Your task to perform on an android device: Open Youtube and go to the subscriptions tab Image 0: 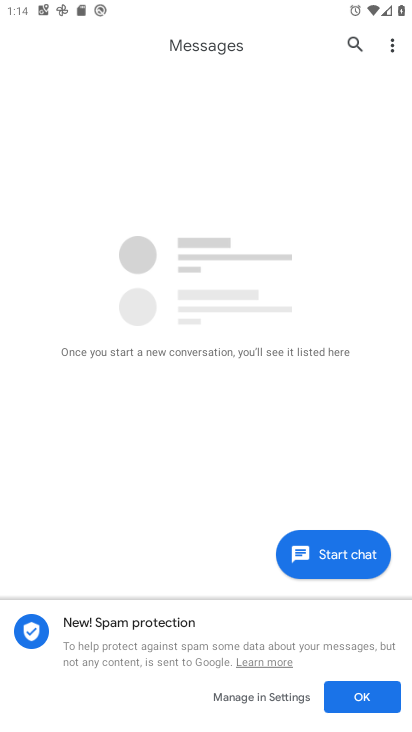
Step 0: press home button
Your task to perform on an android device: Open Youtube and go to the subscriptions tab Image 1: 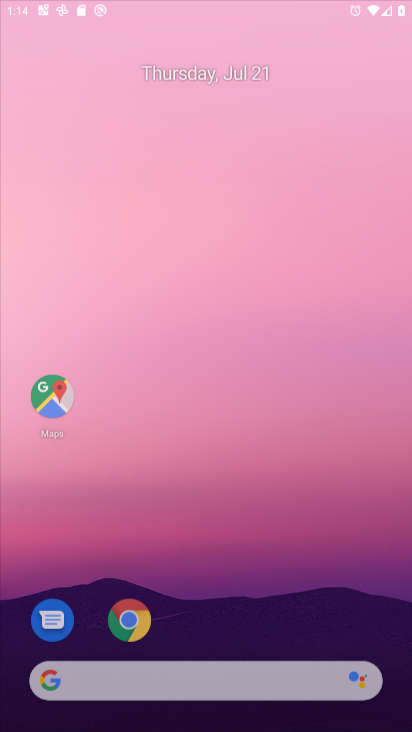
Step 1: drag from (181, 581) to (303, 194)
Your task to perform on an android device: Open Youtube and go to the subscriptions tab Image 2: 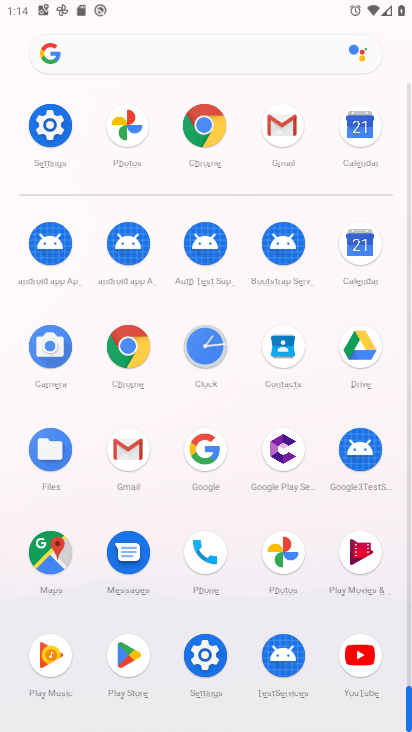
Step 2: click (360, 653)
Your task to perform on an android device: Open Youtube and go to the subscriptions tab Image 3: 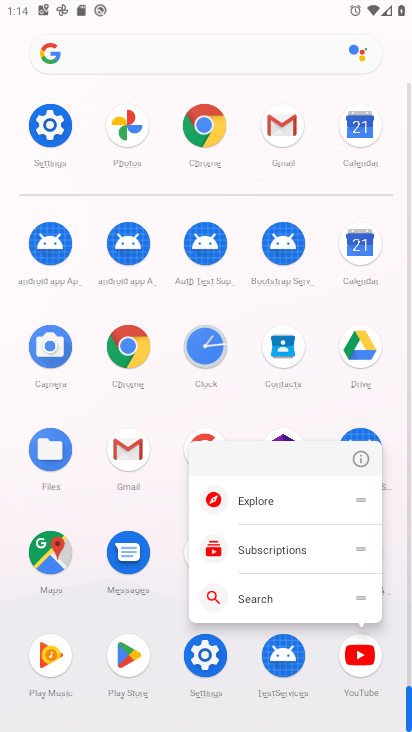
Step 3: click (371, 460)
Your task to perform on an android device: Open Youtube and go to the subscriptions tab Image 4: 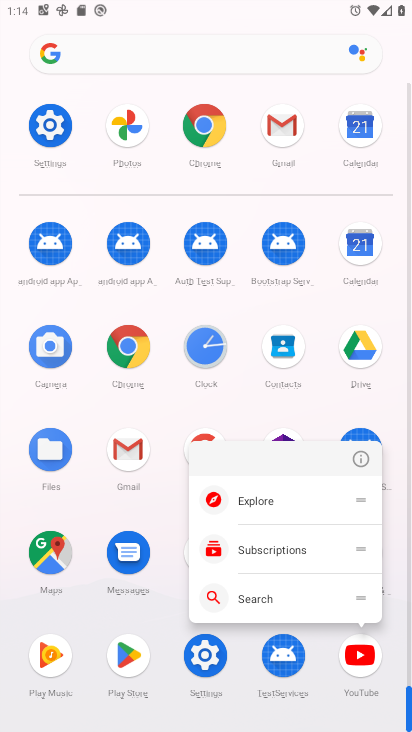
Step 4: click (371, 460)
Your task to perform on an android device: Open Youtube and go to the subscriptions tab Image 5: 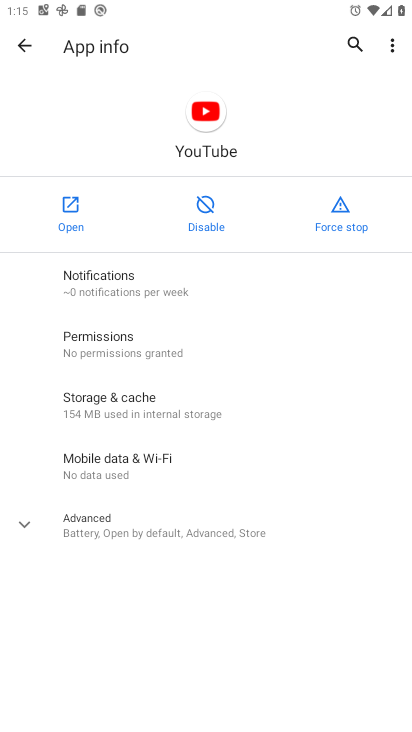
Step 5: click (61, 213)
Your task to perform on an android device: Open Youtube and go to the subscriptions tab Image 6: 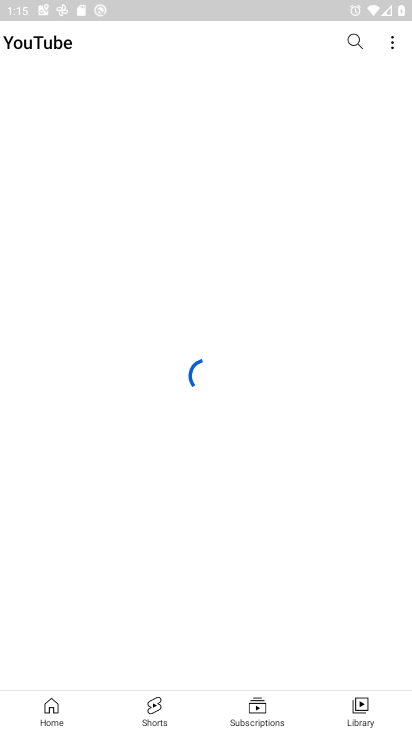
Step 6: click (267, 711)
Your task to perform on an android device: Open Youtube and go to the subscriptions tab Image 7: 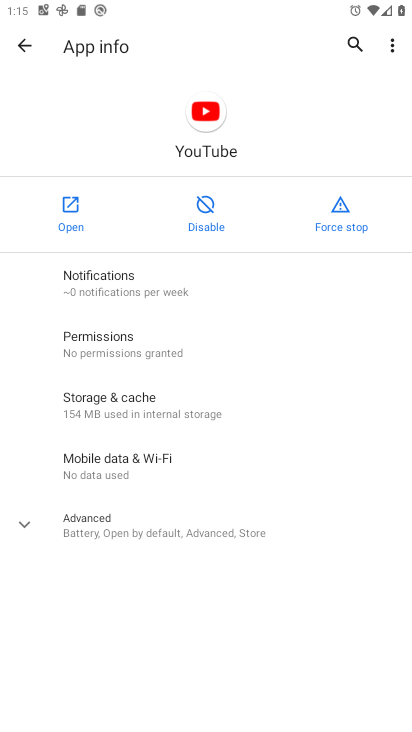
Step 7: click (77, 221)
Your task to perform on an android device: Open Youtube and go to the subscriptions tab Image 8: 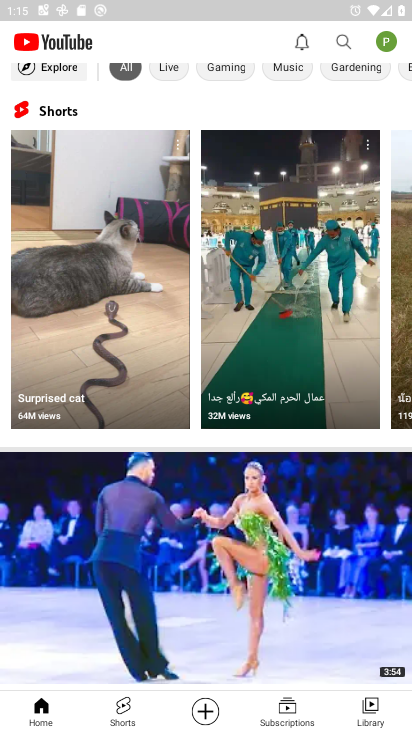
Step 8: click (255, 705)
Your task to perform on an android device: Open Youtube and go to the subscriptions tab Image 9: 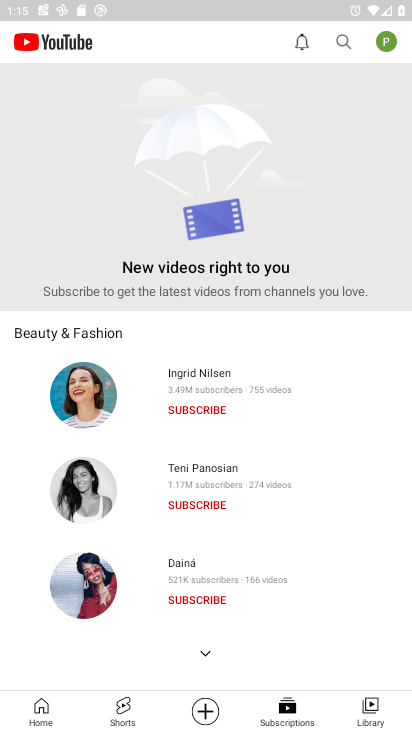
Step 9: task complete